Your task to perform on an android device: toggle pop-ups in chrome Image 0: 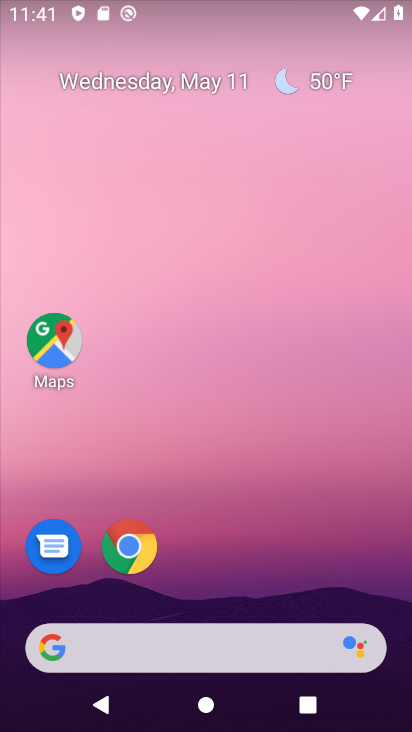
Step 0: click (143, 544)
Your task to perform on an android device: toggle pop-ups in chrome Image 1: 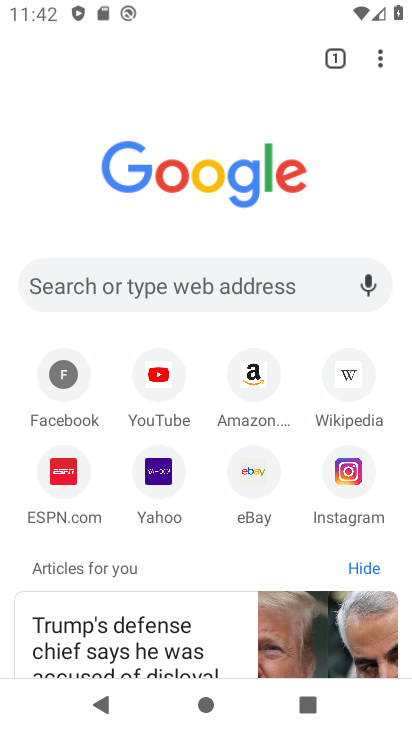
Step 1: click (380, 69)
Your task to perform on an android device: toggle pop-ups in chrome Image 2: 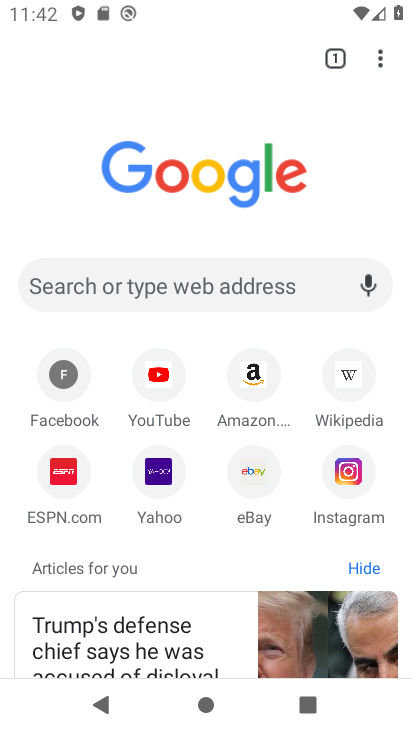
Step 2: click (380, 69)
Your task to perform on an android device: toggle pop-ups in chrome Image 3: 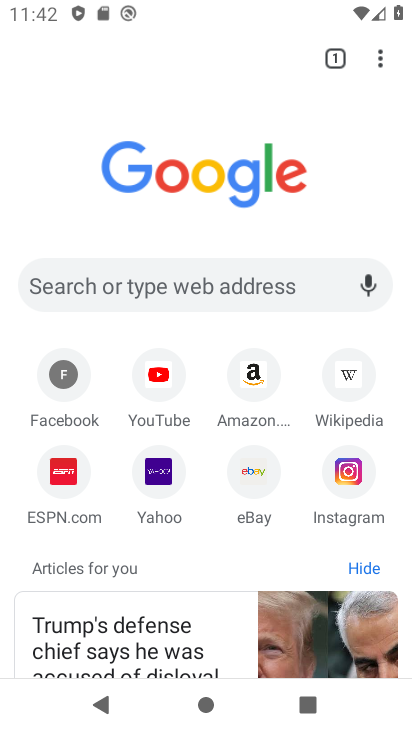
Step 3: click (368, 71)
Your task to perform on an android device: toggle pop-ups in chrome Image 4: 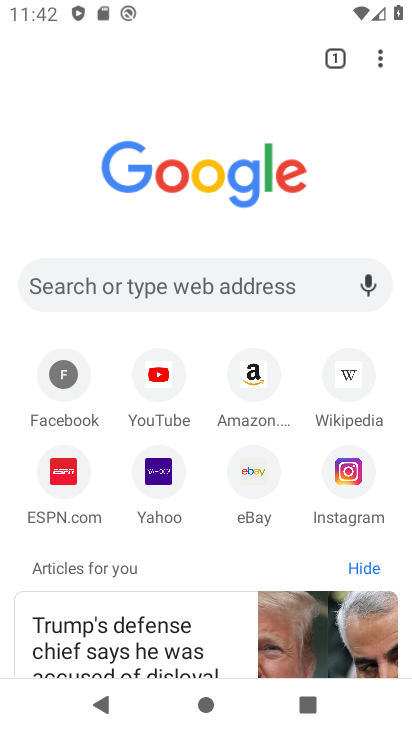
Step 4: click (379, 62)
Your task to perform on an android device: toggle pop-ups in chrome Image 5: 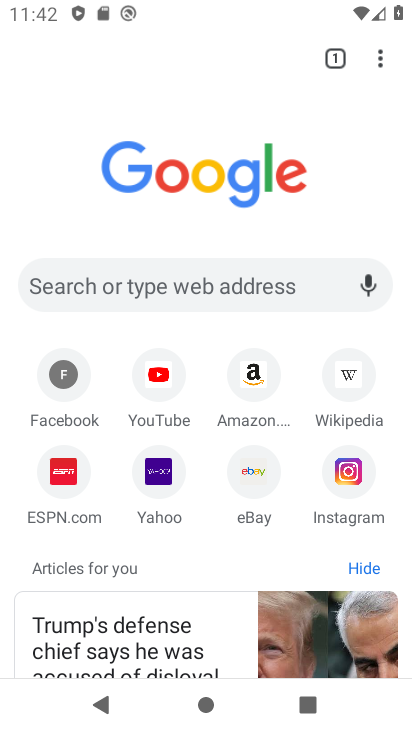
Step 5: click (379, 62)
Your task to perform on an android device: toggle pop-ups in chrome Image 6: 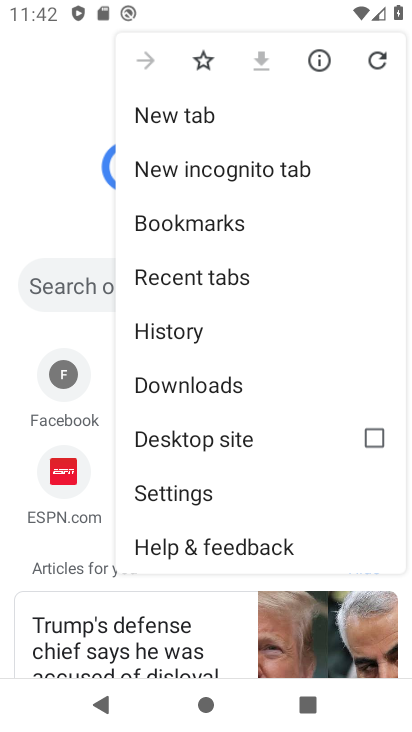
Step 6: click (200, 487)
Your task to perform on an android device: toggle pop-ups in chrome Image 7: 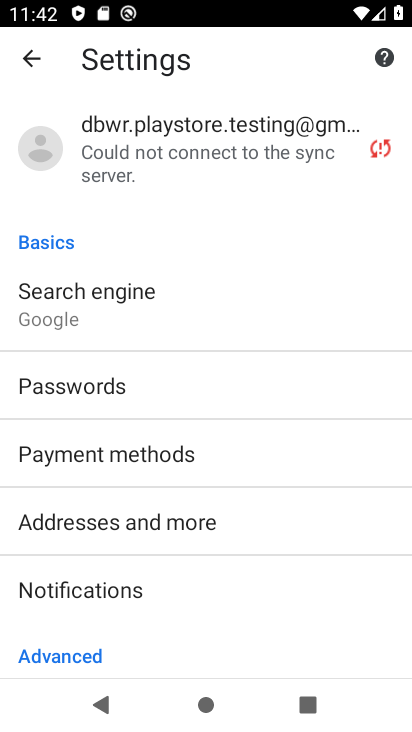
Step 7: drag from (159, 710) to (299, 341)
Your task to perform on an android device: toggle pop-ups in chrome Image 8: 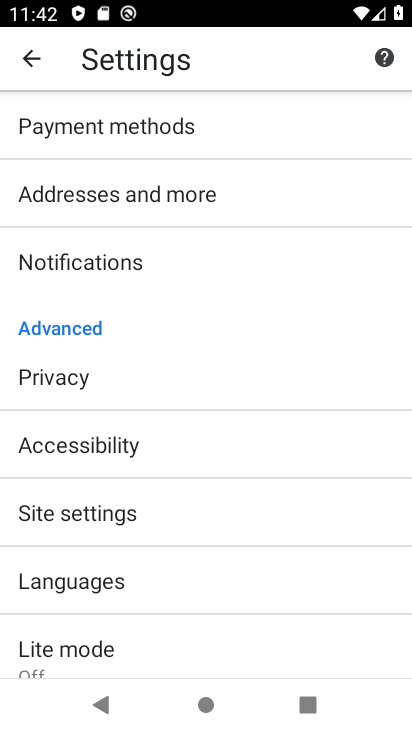
Step 8: click (217, 517)
Your task to perform on an android device: toggle pop-ups in chrome Image 9: 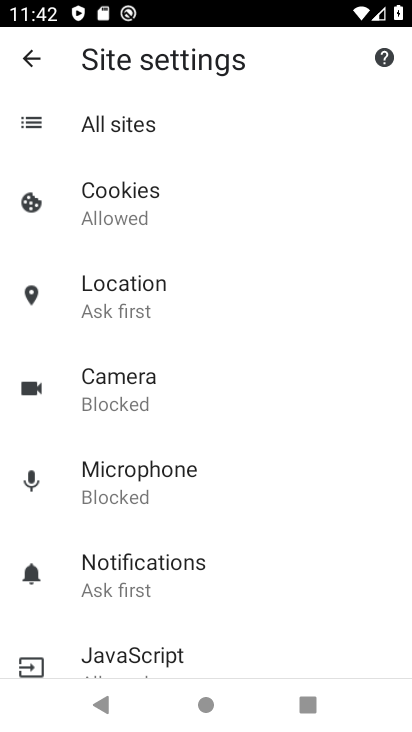
Step 9: drag from (149, 643) to (224, 357)
Your task to perform on an android device: toggle pop-ups in chrome Image 10: 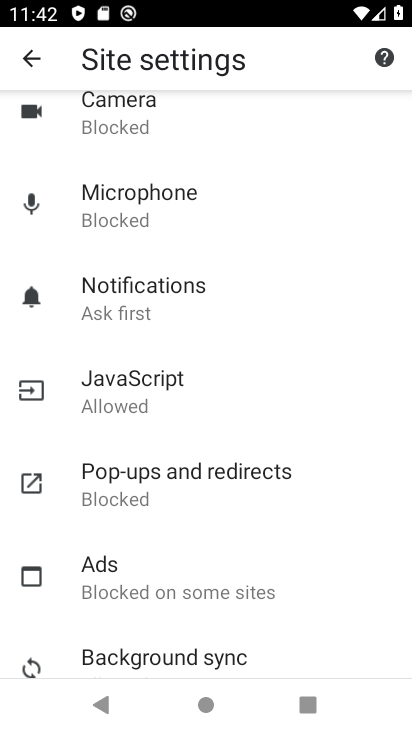
Step 10: click (181, 492)
Your task to perform on an android device: toggle pop-ups in chrome Image 11: 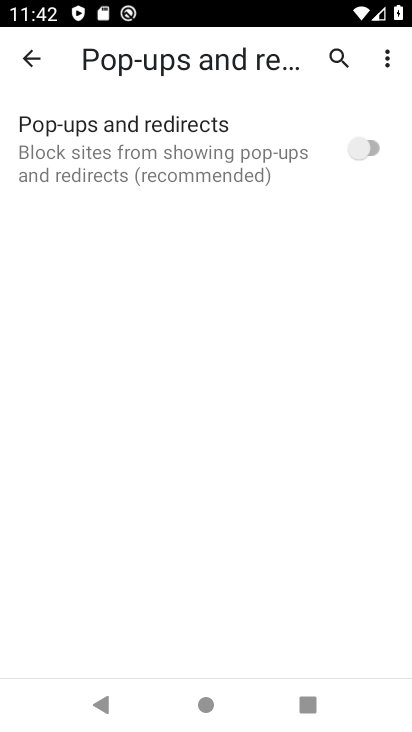
Step 11: click (376, 158)
Your task to perform on an android device: toggle pop-ups in chrome Image 12: 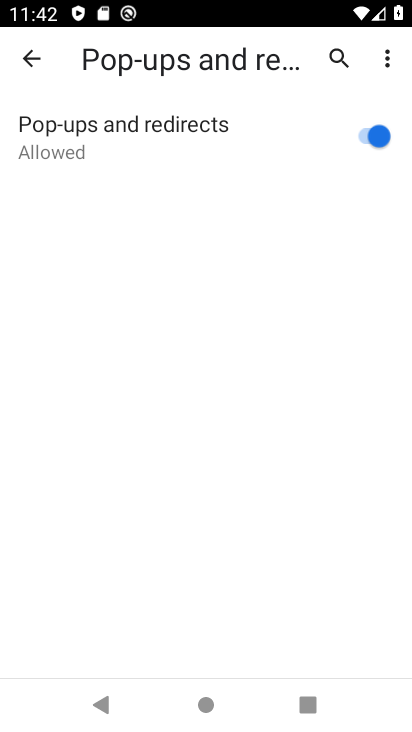
Step 12: task complete